Your task to perform on an android device: Go to internet settings Image 0: 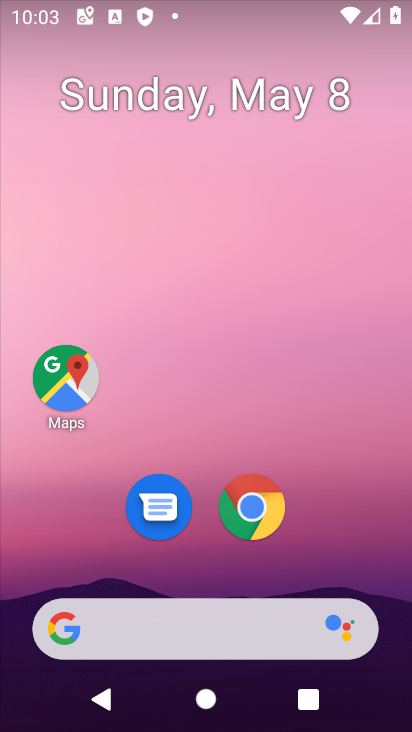
Step 0: drag from (272, 707) to (282, 41)
Your task to perform on an android device: Go to internet settings Image 1: 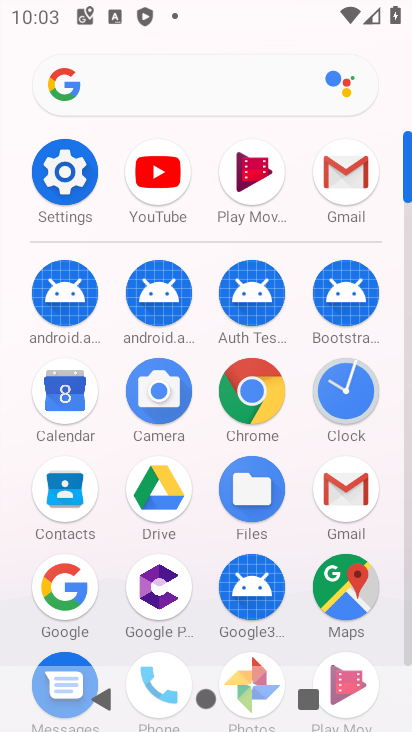
Step 1: click (73, 177)
Your task to perform on an android device: Go to internet settings Image 2: 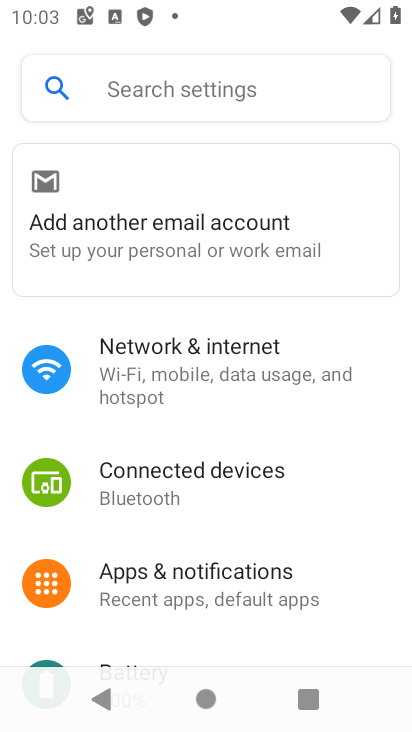
Step 2: click (226, 364)
Your task to perform on an android device: Go to internet settings Image 3: 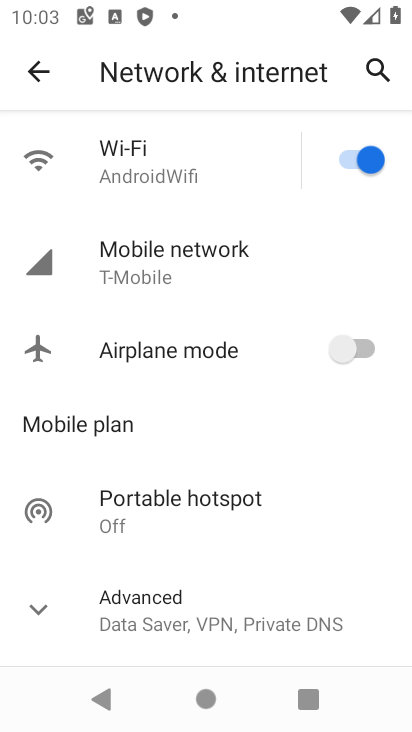
Step 3: task complete